Your task to perform on an android device: Open Maps and search for coffee Image 0: 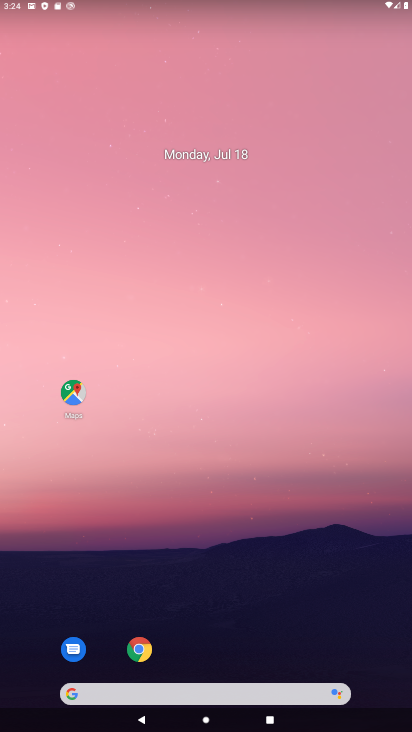
Step 0: drag from (375, 644) to (329, 79)
Your task to perform on an android device: Open Maps and search for coffee Image 1: 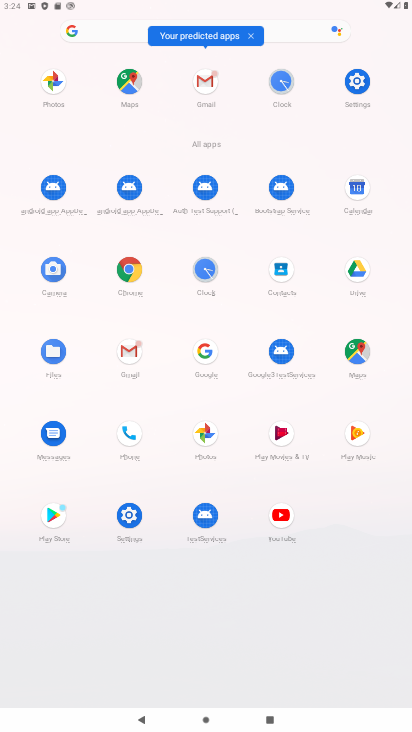
Step 1: click (135, 82)
Your task to perform on an android device: Open Maps and search for coffee Image 2: 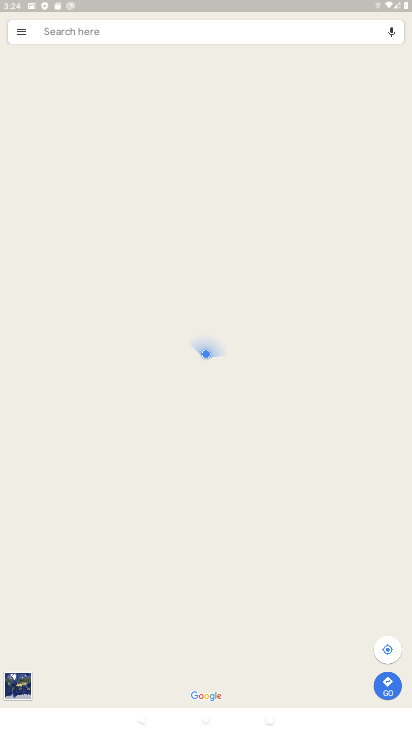
Step 2: click (225, 35)
Your task to perform on an android device: Open Maps and search for coffee Image 3: 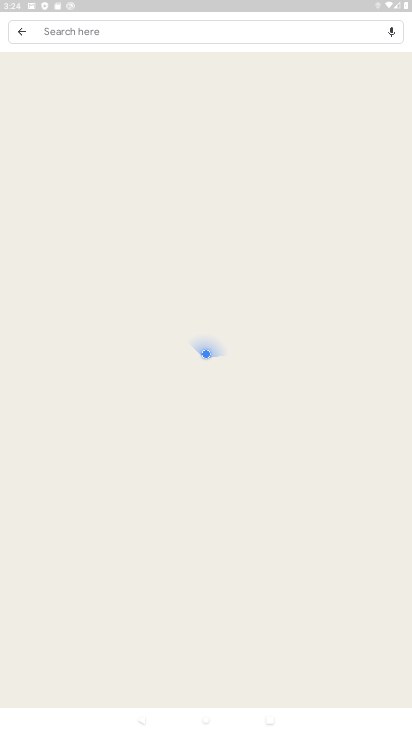
Step 3: click (225, 35)
Your task to perform on an android device: Open Maps and search for coffee Image 4: 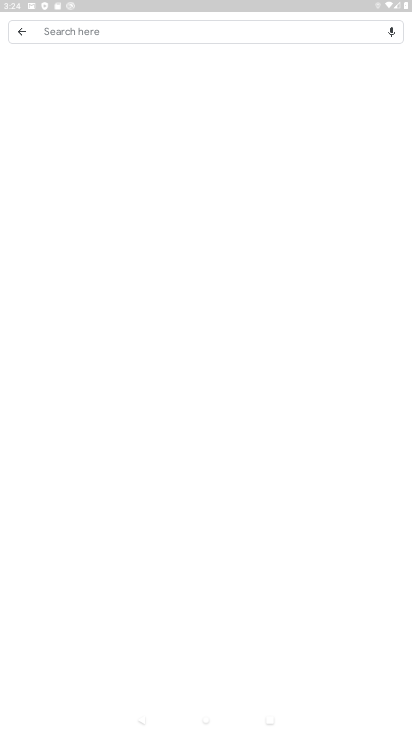
Step 4: click (225, 35)
Your task to perform on an android device: Open Maps and search for coffee Image 5: 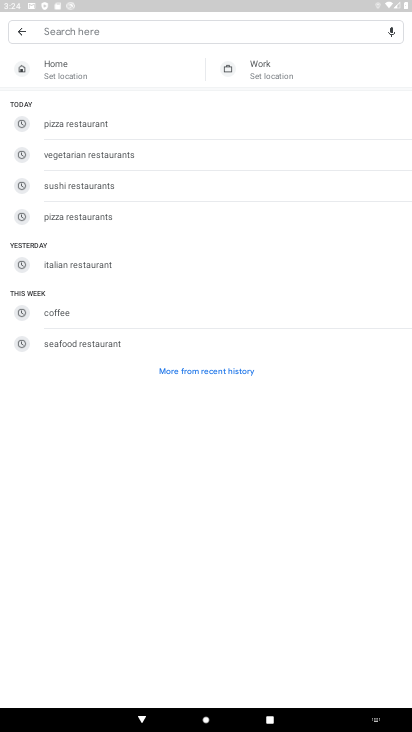
Step 5: click (219, 320)
Your task to perform on an android device: Open Maps and search for coffee Image 6: 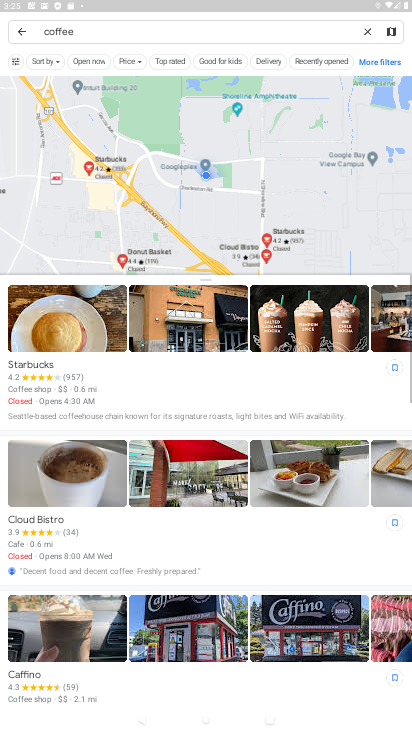
Step 6: task complete